Your task to perform on an android device: Open Amazon Image 0: 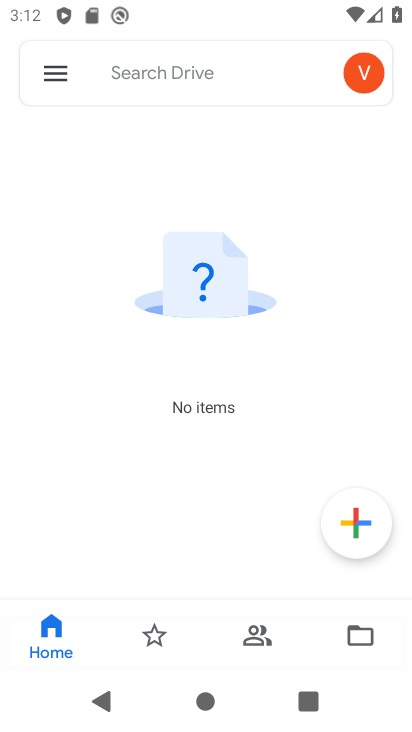
Step 0: press home button
Your task to perform on an android device: Open Amazon Image 1: 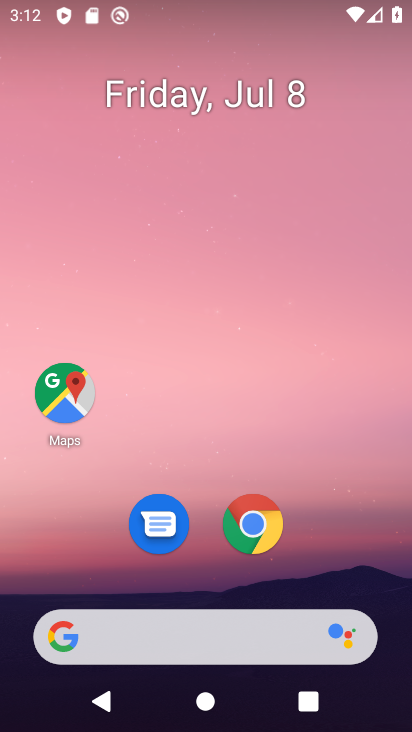
Step 1: click (271, 515)
Your task to perform on an android device: Open Amazon Image 2: 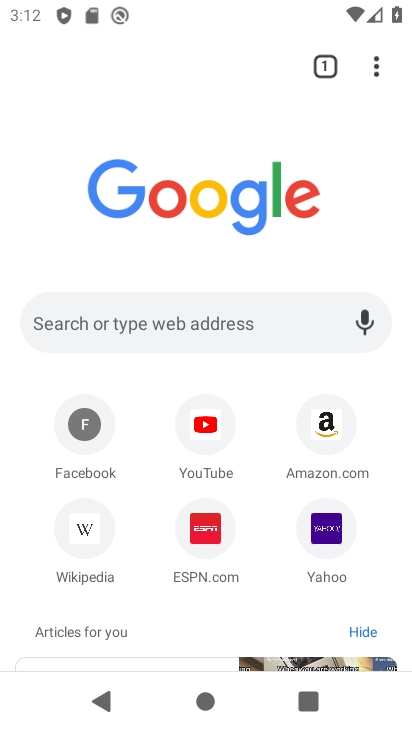
Step 2: click (327, 427)
Your task to perform on an android device: Open Amazon Image 3: 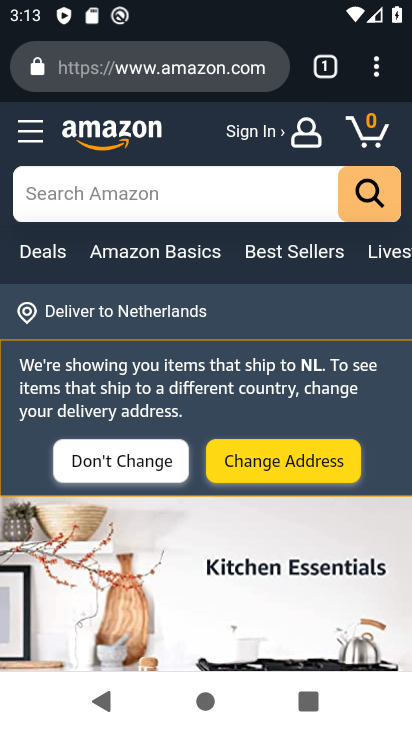
Step 3: task complete